Your task to perform on an android device: turn on showing notifications on the lock screen Image 0: 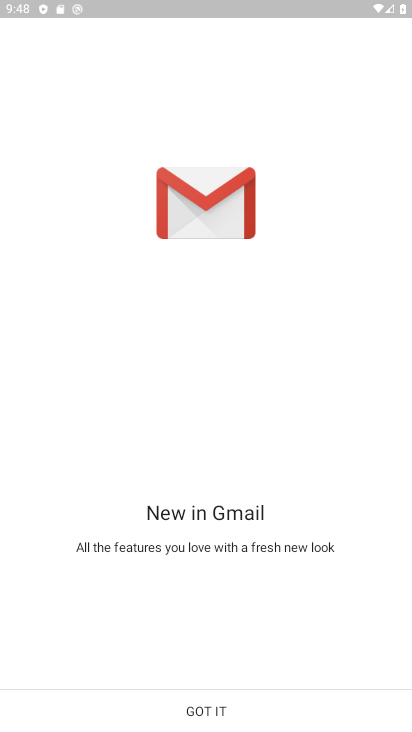
Step 0: click (217, 714)
Your task to perform on an android device: turn on showing notifications on the lock screen Image 1: 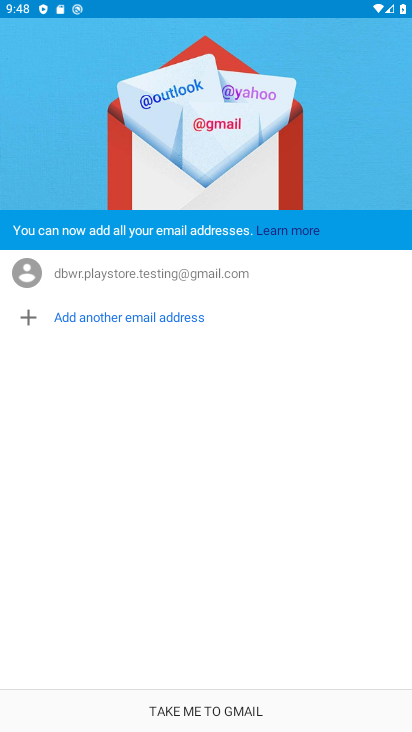
Step 1: press home button
Your task to perform on an android device: turn on showing notifications on the lock screen Image 2: 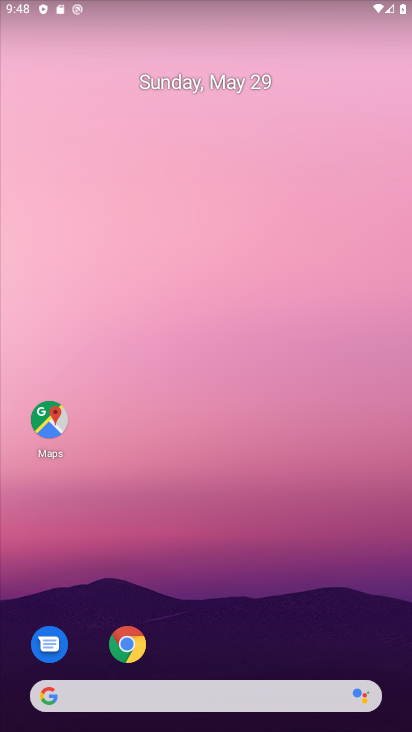
Step 2: drag from (126, 730) to (132, 81)
Your task to perform on an android device: turn on showing notifications on the lock screen Image 3: 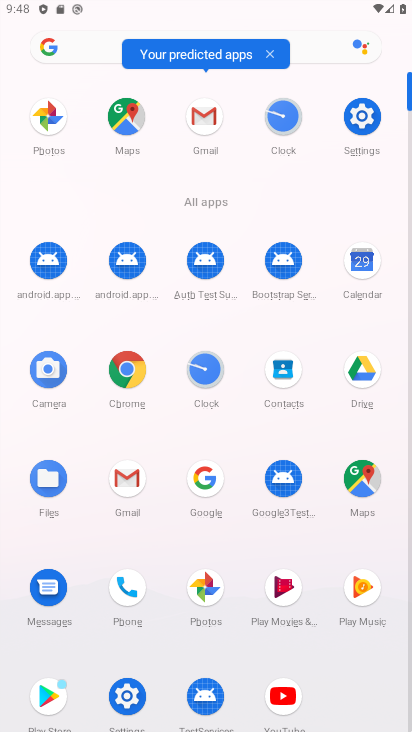
Step 3: click (363, 130)
Your task to perform on an android device: turn on showing notifications on the lock screen Image 4: 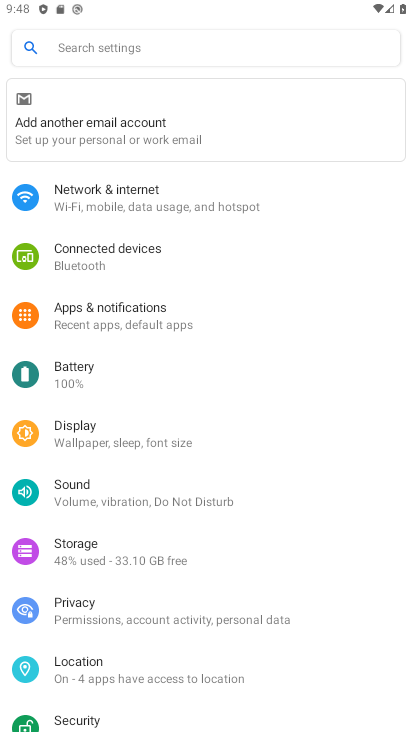
Step 4: click (144, 304)
Your task to perform on an android device: turn on showing notifications on the lock screen Image 5: 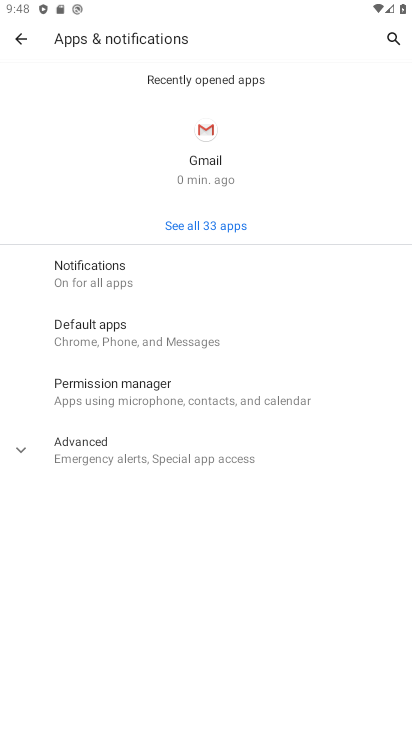
Step 5: click (145, 284)
Your task to perform on an android device: turn on showing notifications on the lock screen Image 6: 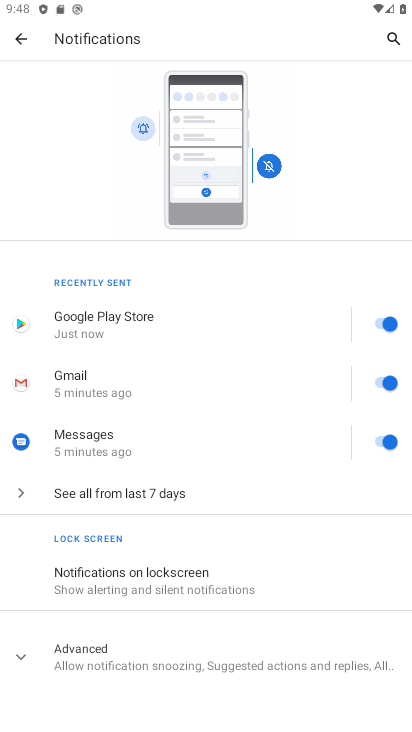
Step 6: click (236, 589)
Your task to perform on an android device: turn on showing notifications on the lock screen Image 7: 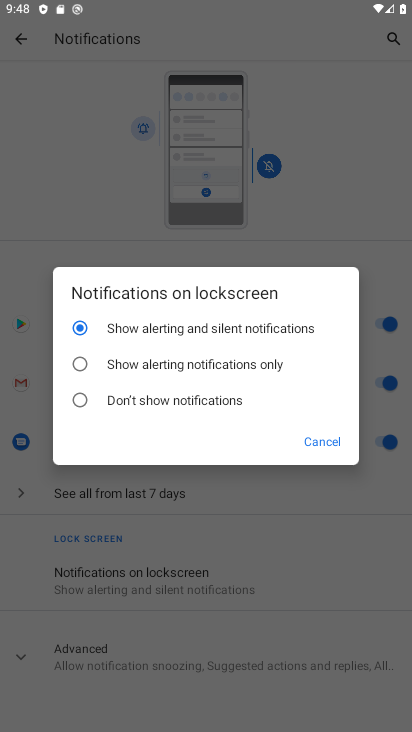
Step 7: task complete